Your task to perform on an android device: Open Google Maps Image 0: 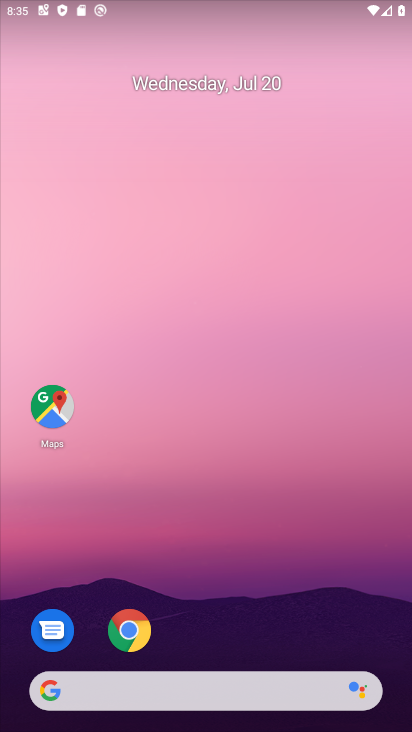
Step 0: click (60, 398)
Your task to perform on an android device: Open Google Maps Image 1: 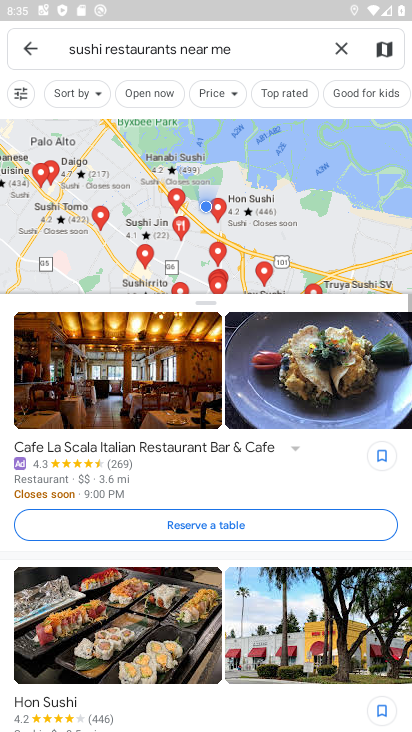
Step 1: task complete